Your task to perform on an android device: turn off location Image 0: 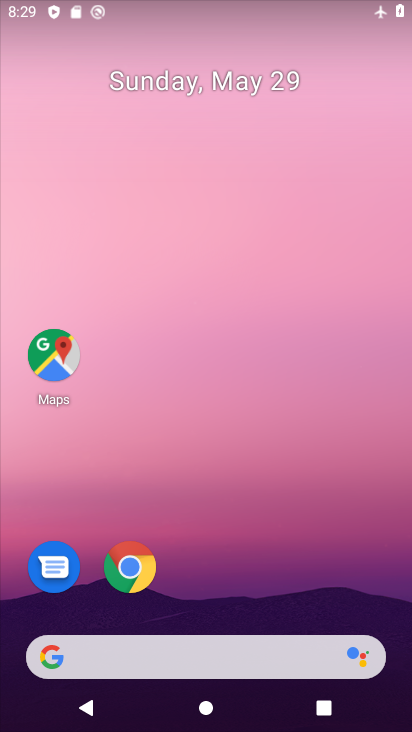
Step 0: drag from (364, 613) to (323, 277)
Your task to perform on an android device: turn off location Image 1: 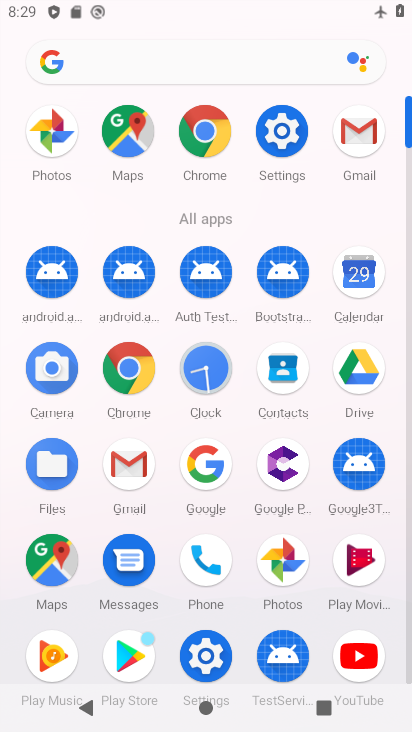
Step 1: click (203, 658)
Your task to perform on an android device: turn off location Image 2: 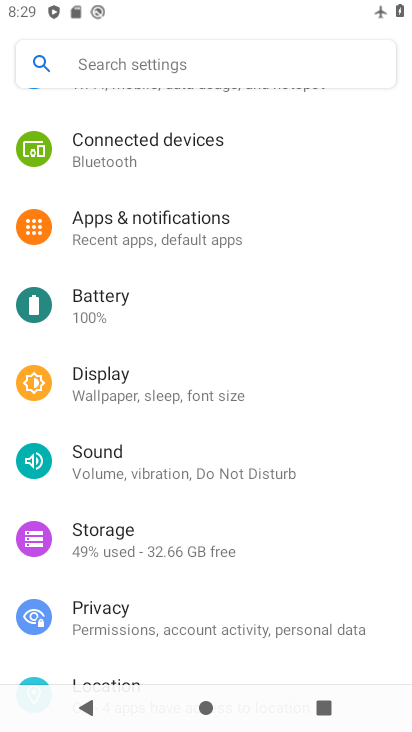
Step 2: drag from (306, 596) to (274, 273)
Your task to perform on an android device: turn off location Image 3: 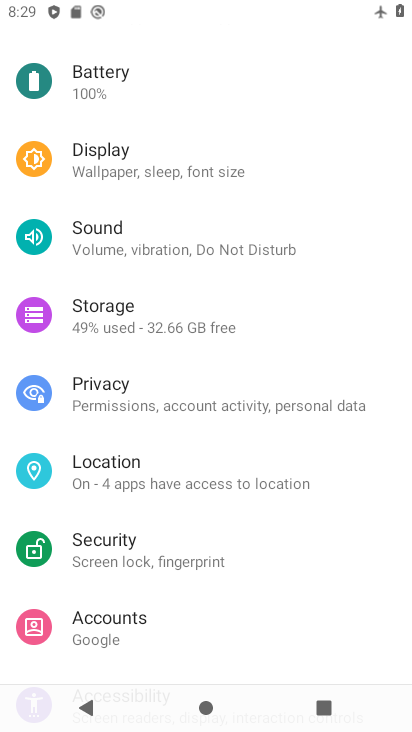
Step 3: drag from (257, 581) to (261, 336)
Your task to perform on an android device: turn off location Image 4: 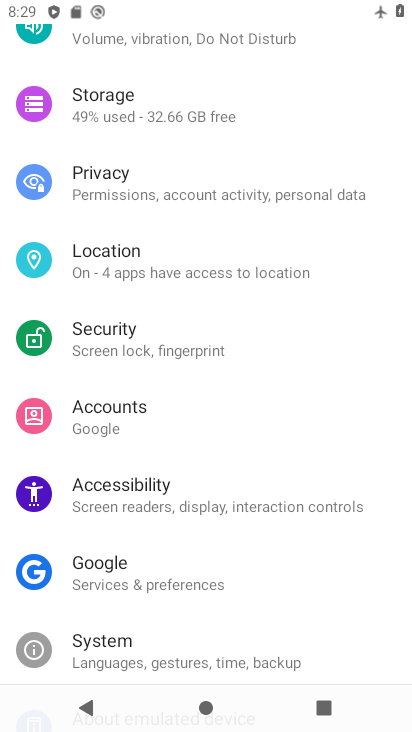
Step 4: click (98, 241)
Your task to perform on an android device: turn off location Image 5: 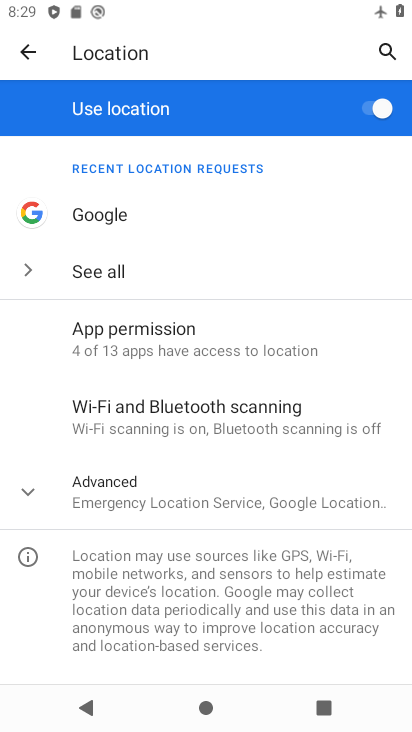
Step 5: click (372, 109)
Your task to perform on an android device: turn off location Image 6: 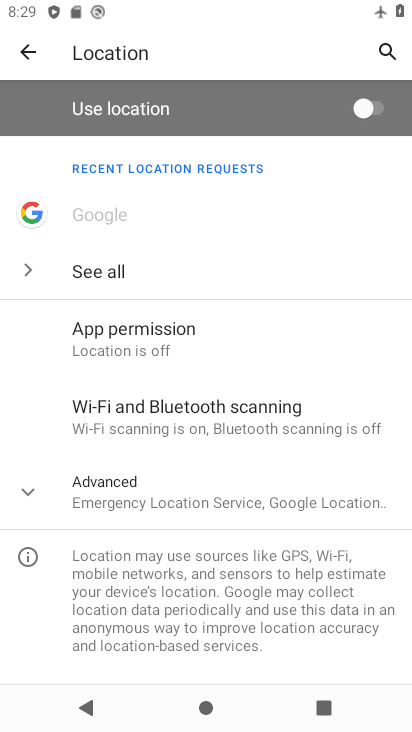
Step 6: task complete